Your task to perform on an android device: Open the web browser Image 0: 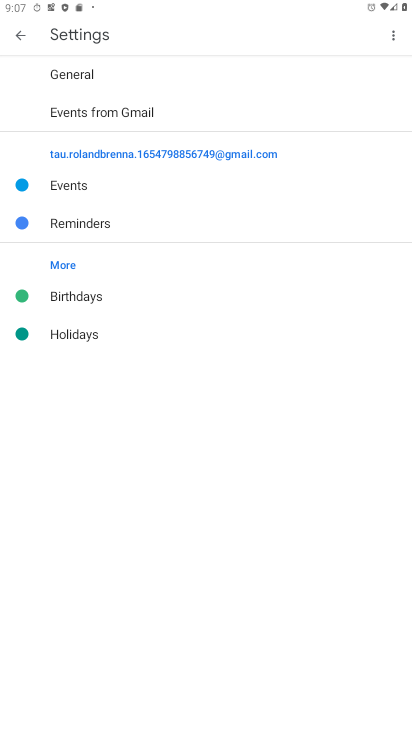
Step 0: drag from (239, 665) to (255, 248)
Your task to perform on an android device: Open the web browser Image 1: 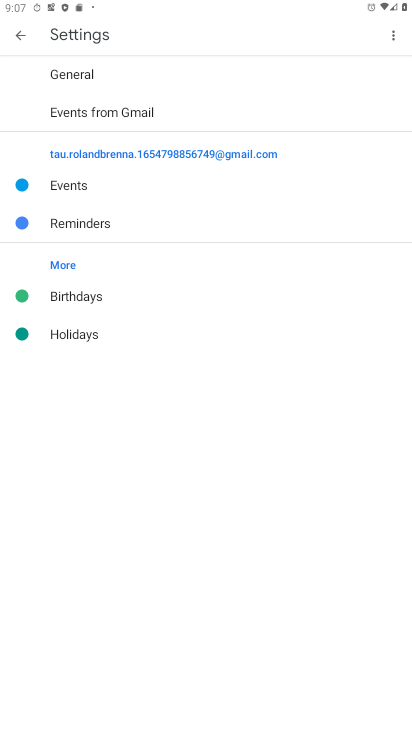
Step 1: press home button
Your task to perform on an android device: Open the web browser Image 2: 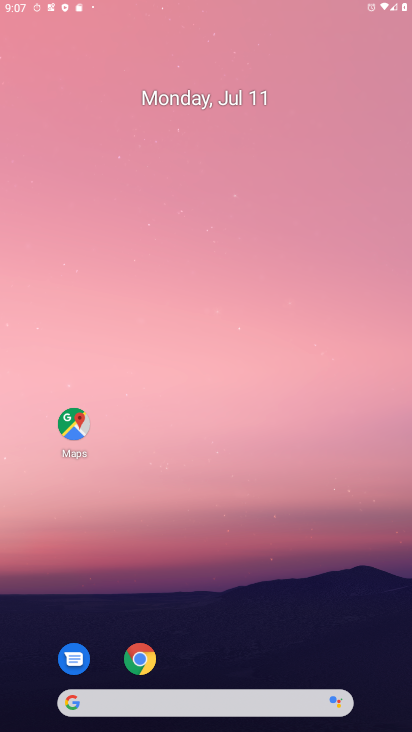
Step 2: drag from (246, 527) to (301, 181)
Your task to perform on an android device: Open the web browser Image 3: 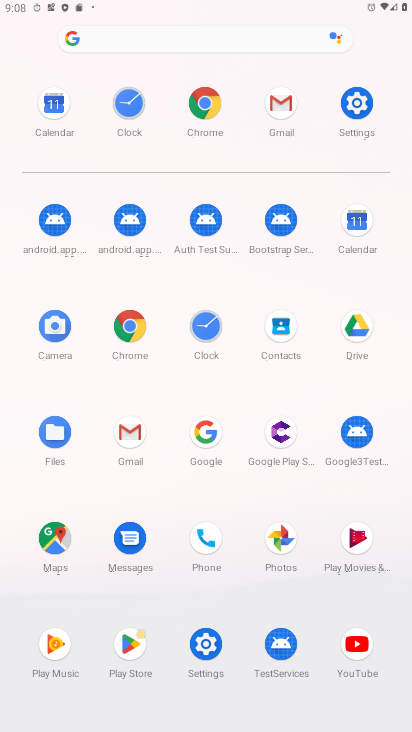
Step 3: click (134, 320)
Your task to perform on an android device: Open the web browser Image 4: 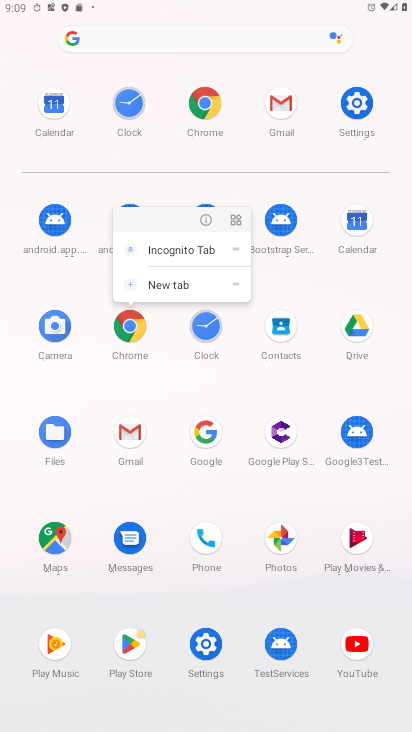
Step 4: click (204, 217)
Your task to perform on an android device: Open the web browser Image 5: 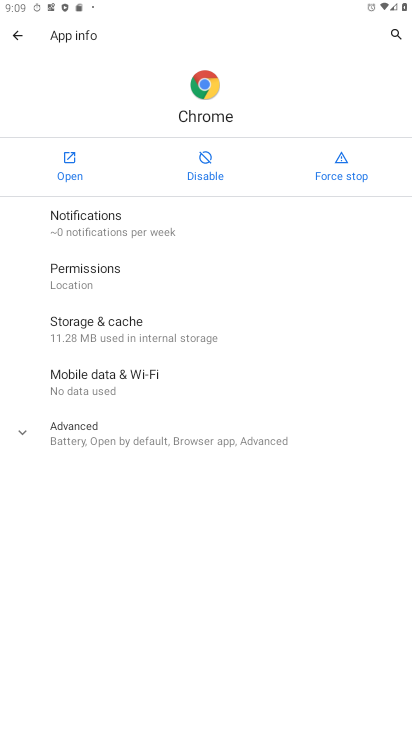
Step 5: click (60, 155)
Your task to perform on an android device: Open the web browser Image 6: 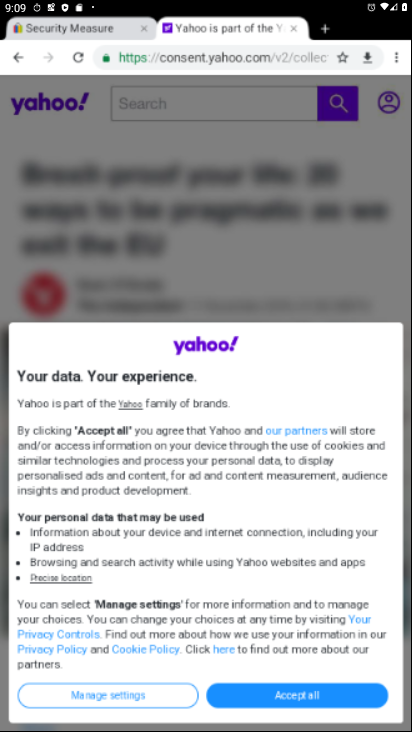
Step 6: task complete